Your task to perform on an android device: add a label to a message in the gmail app Image 0: 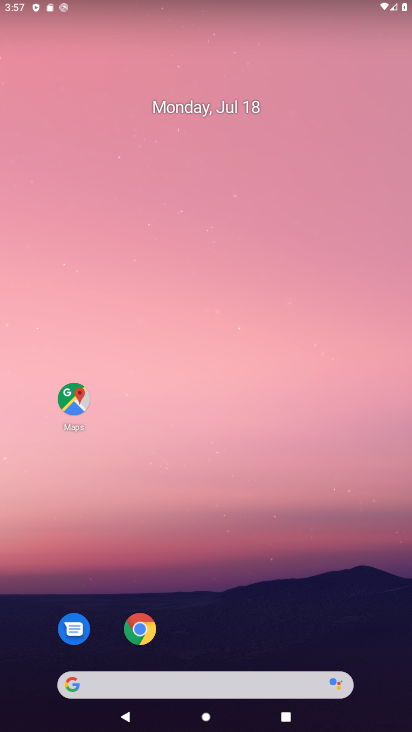
Step 0: press home button
Your task to perform on an android device: add a label to a message in the gmail app Image 1: 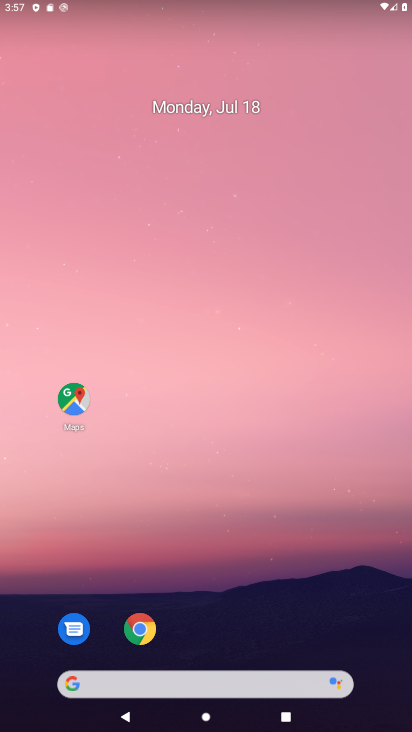
Step 1: drag from (228, 609) to (206, 84)
Your task to perform on an android device: add a label to a message in the gmail app Image 2: 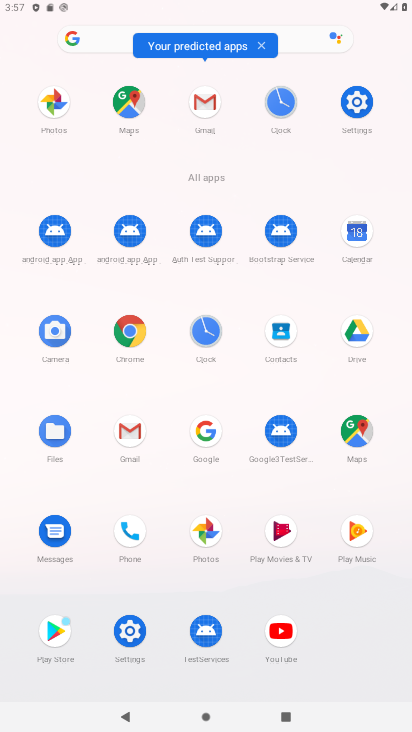
Step 2: click (126, 427)
Your task to perform on an android device: add a label to a message in the gmail app Image 3: 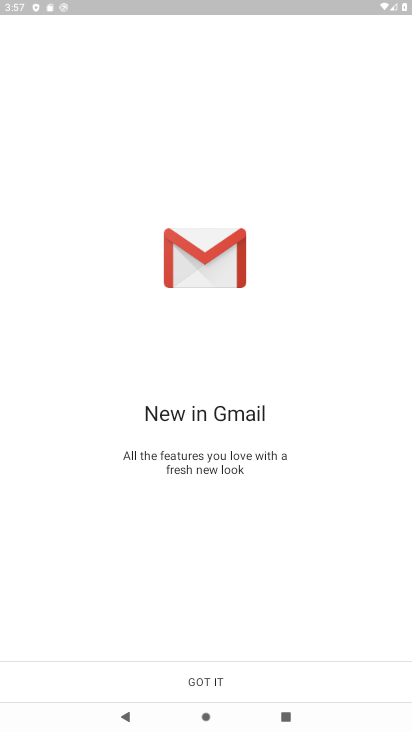
Step 3: click (203, 674)
Your task to perform on an android device: add a label to a message in the gmail app Image 4: 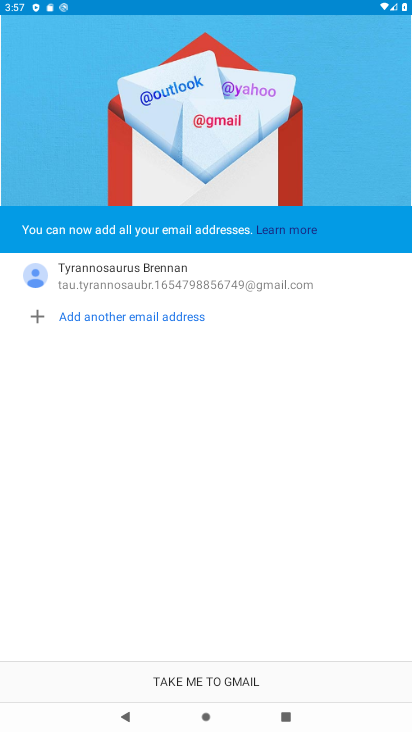
Step 4: click (208, 676)
Your task to perform on an android device: add a label to a message in the gmail app Image 5: 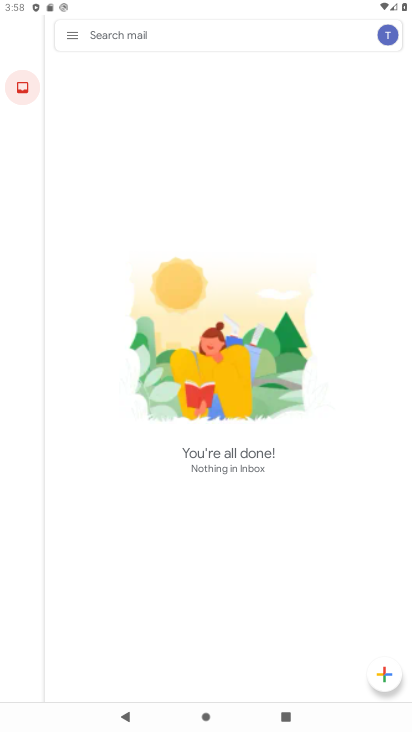
Step 5: task complete